Your task to perform on an android device: change timer sound Image 0: 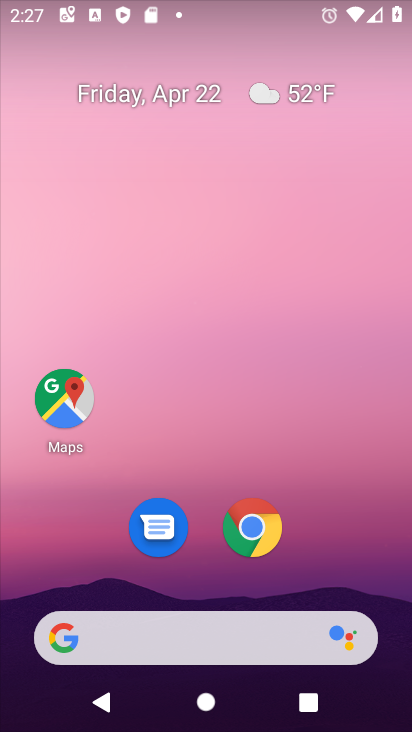
Step 0: drag from (387, 549) to (335, 95)
Your task to perform on an android device: change timer sound Image 1: 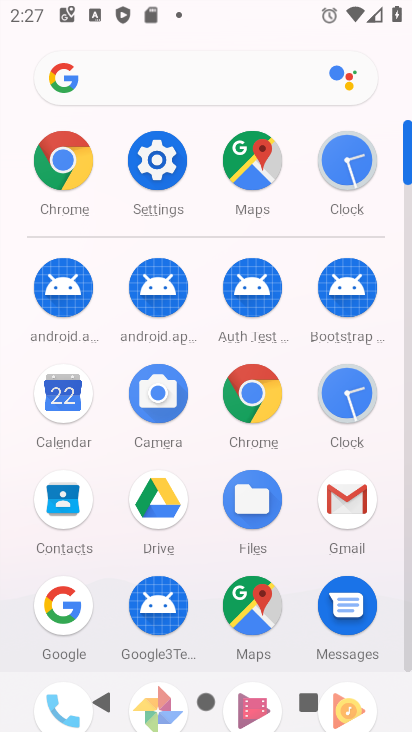
Step 1: click (161, 166)
Your task to perform on an android device: change timer sound Image 2: 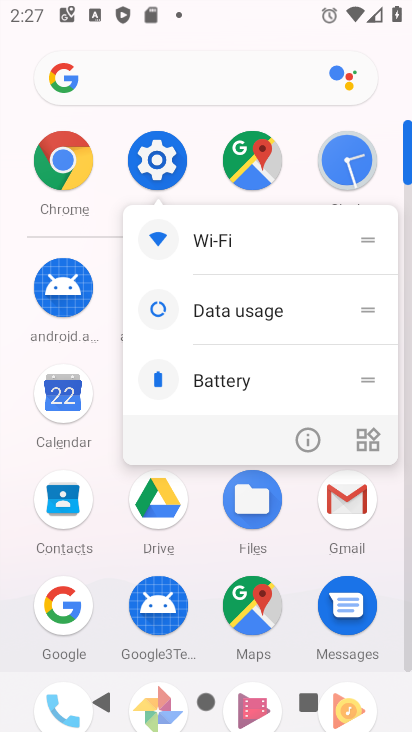
Step 2: click (160, 166)
Your task to perform on an android device: change timer sound Image 3: 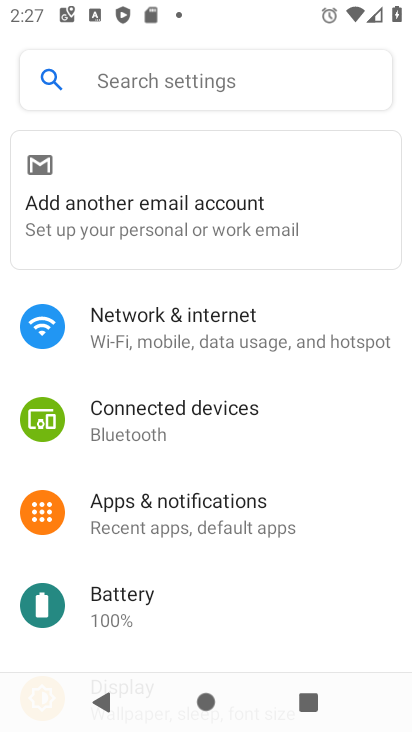
Step 3: drag from (239, 522) to (141, 194)
Your task to perform on an android device: change timer sound Image 4: 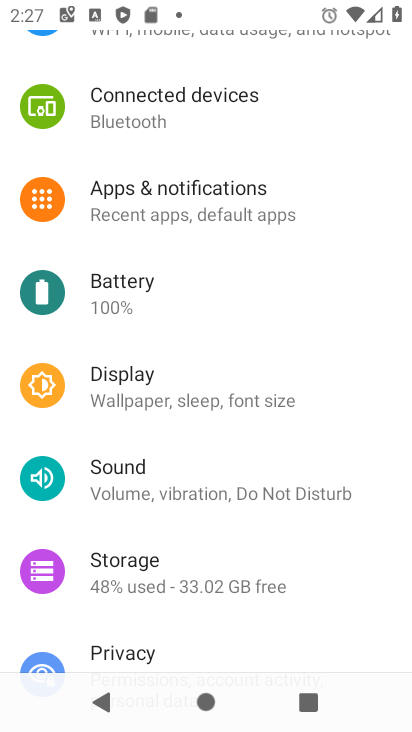
Step 4: drag from (217, 478) to (148, 195)
Your task to perform on an android device: change timer sound Image 5: 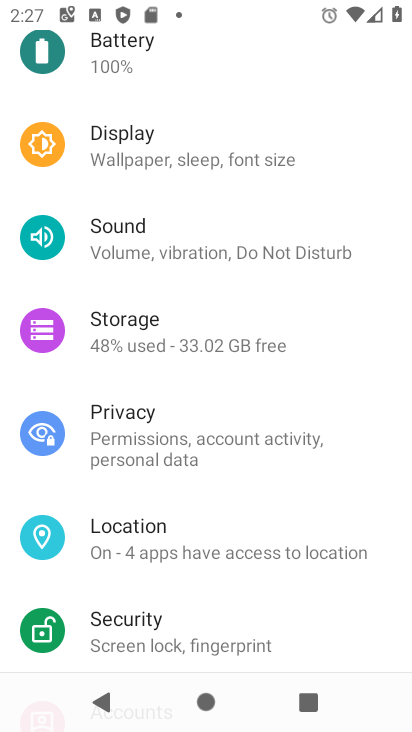
Step 5: drag from (189, 583) to (135, 251)
Your task to perform on an android device: change timer sound Image 6: 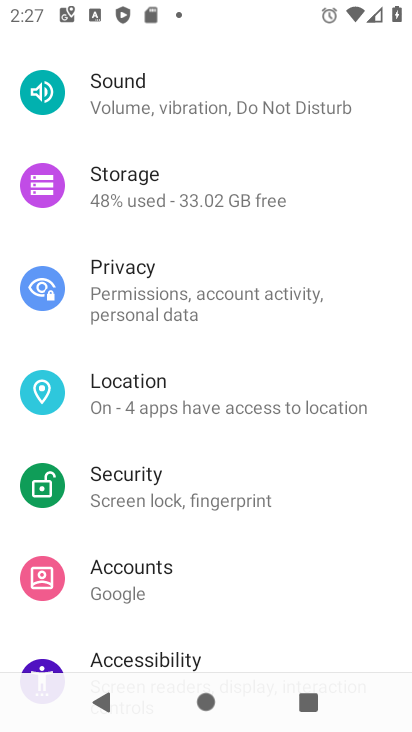
Step 6: click (130, 96)
Your task to perform on an android device: change timer sound Image 7: 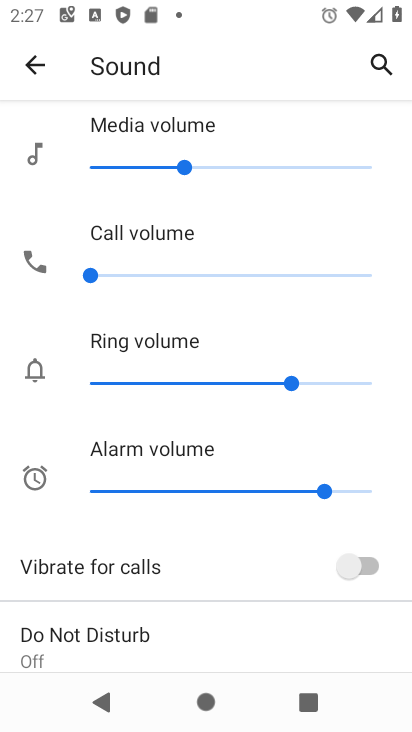
Step 7: task complete